Your task to perform on an android device: see creations saved in the google photos Image 0: 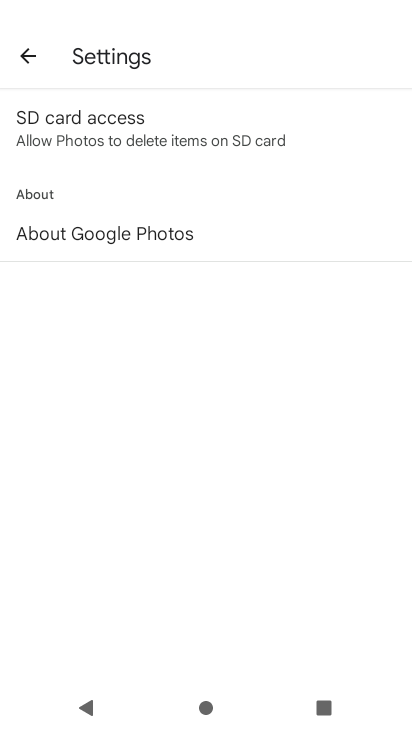
Step 0: press home button
Your task to perform on an android device: see creations saved in the google photos Image 1: 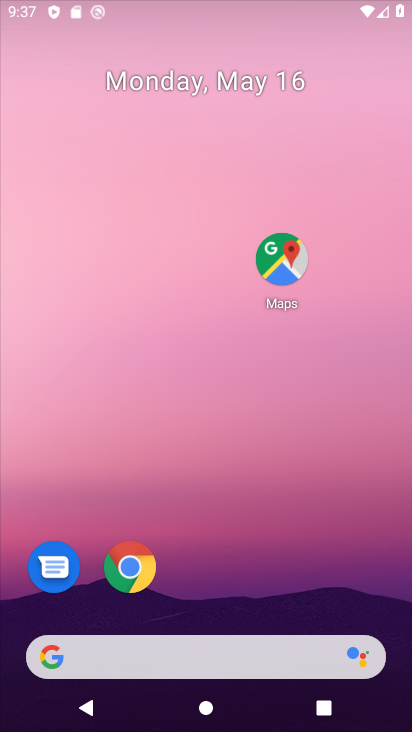
Step 1: drag from (246, 546) to (206, 150)
Your task to perform on an android device: see creations saved in the google photos Image 2: 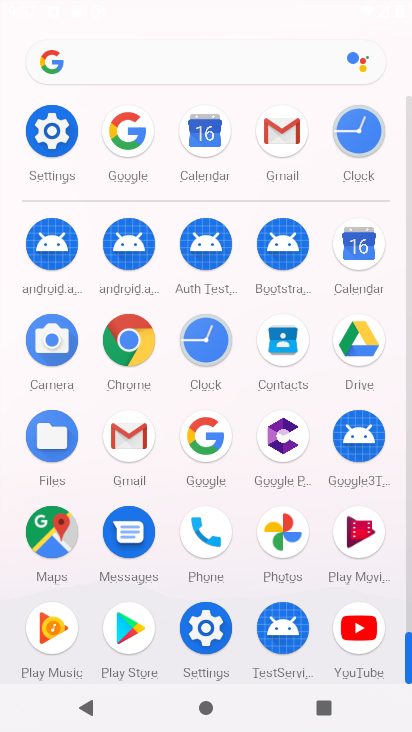
Step 2: click (284, 527)
Your task to perform on an android device: see creations saved in the google photos Image 3: 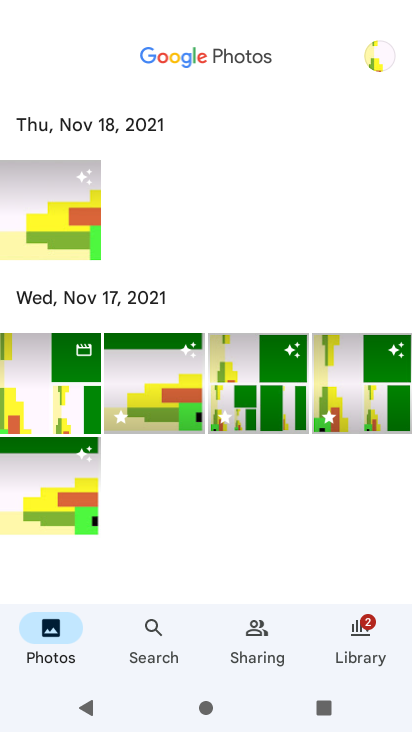
Step 3: drag from (166, 251) to (197, 398)
Your task to perform on an android device: see creations saved in the google photos Image 4: 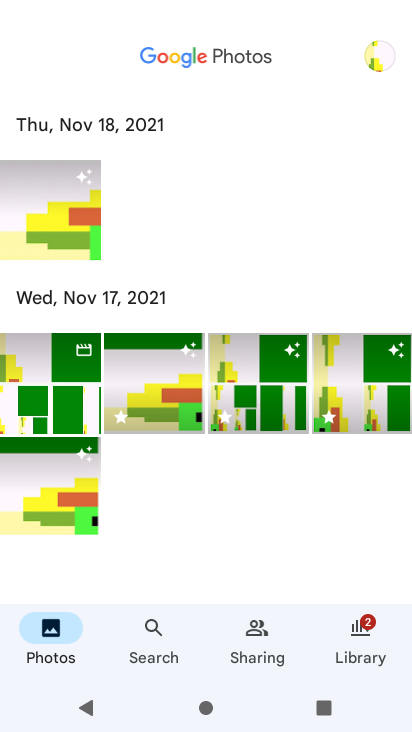
Step 4: click (157, 645)
Your task to perform on an android device: see creations saved in the google photos Image 5: 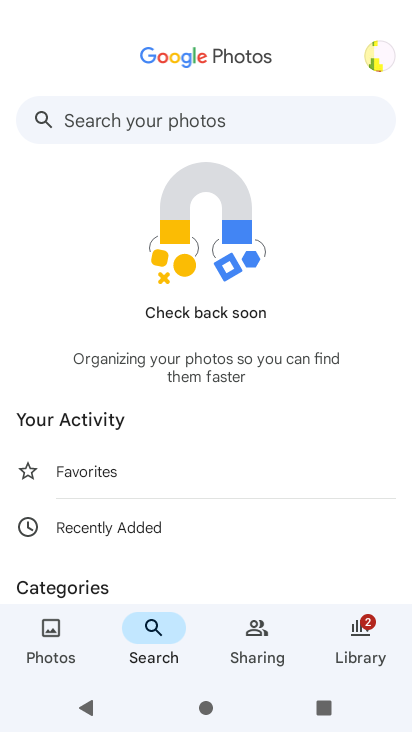
Step 5: drag from (197, 488) to (199, 41)
Your task to perform on an android device: see creations saved in the google photos Image 6: 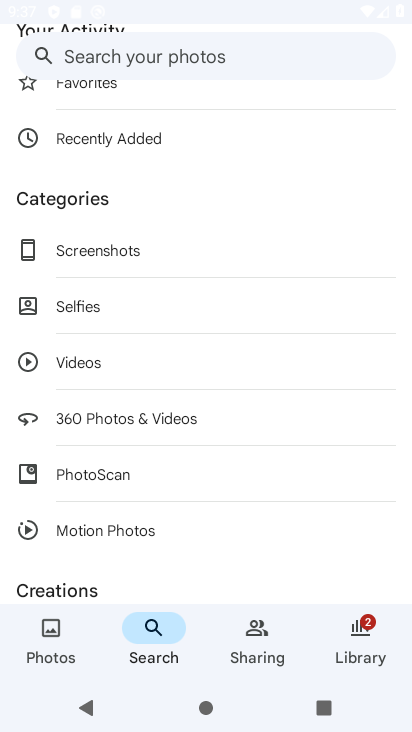
Step 6: drag from (166, 527) to (158, 210)
Your task to perform on an android device: see creations saved in the google photos Image 7: 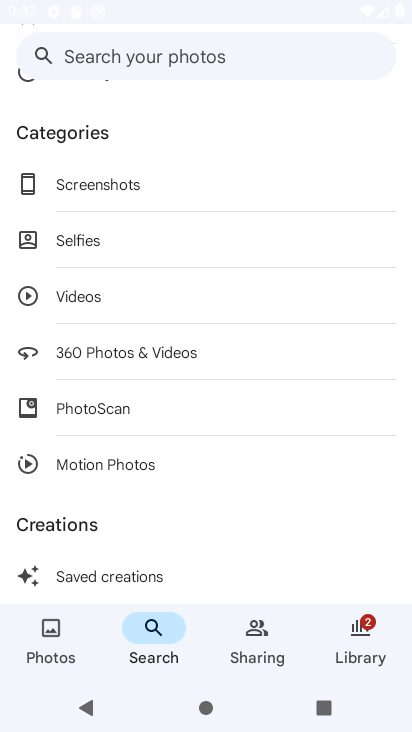
Step 7: click (117, 574)
Your task to perform on an android device: see creations saved in the google photos Image 8: 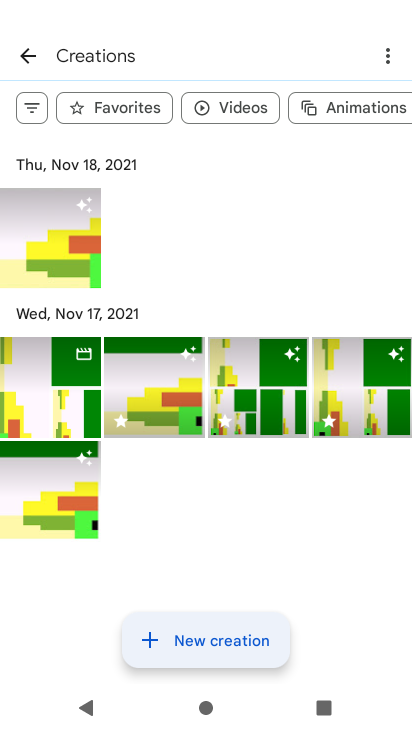
Step 8: task complete